Your task to perform on an android device: stop showing notifications on the lock screen Image 0: 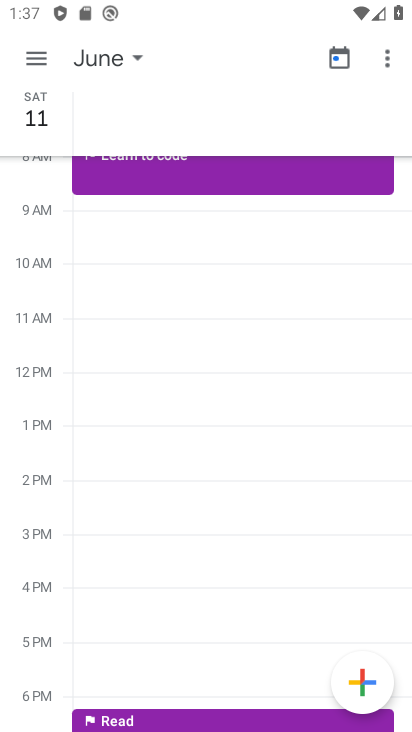
Step 0: press home button
Your task to perform on an android device: stop showing notifications on the lock screen Image 1: 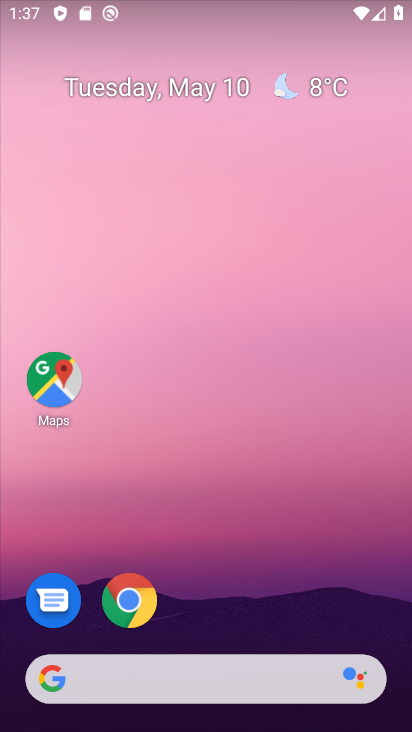
Step 1: drag from (209, 630) to (276, 80)
Your task to perform on an android device: stop showing notifications on the lock screen Image 2: 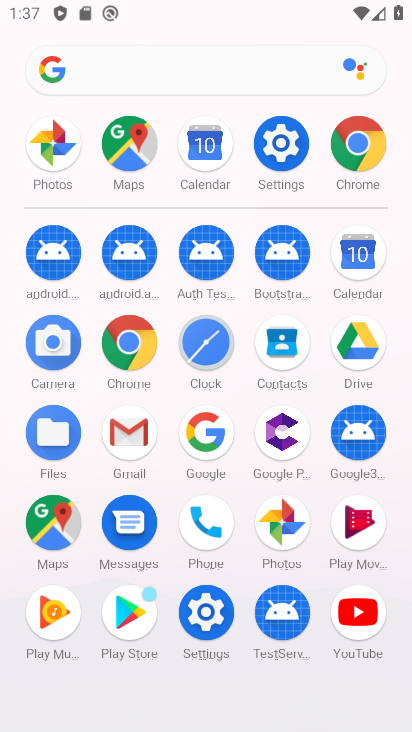
Step 2: click (273, 135)
Your task to perform on an android device: stop showing notifications on the lock screen Image 3: 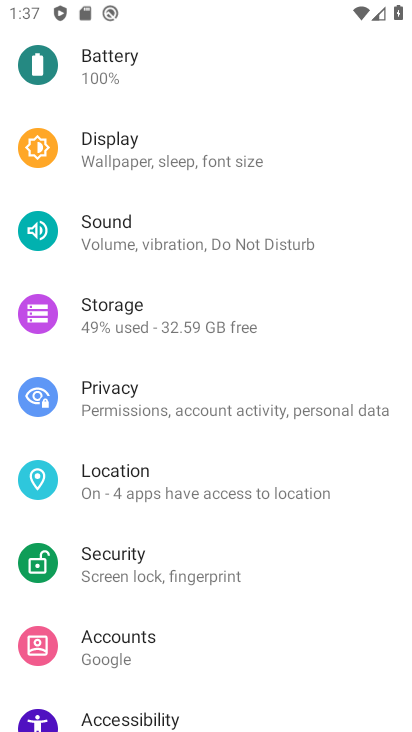
Step 3: drag from (149, 124) to (164, 578)
Your task to perform on an android device: stop showing notifications on the lock screen Image 4: 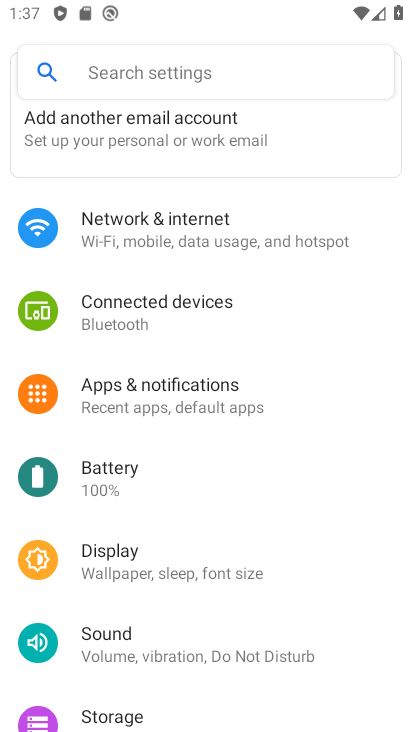
Step 4: click (161, 396)
Your task to perform on an android device: stop showing notifications on the lock screen Image 5: 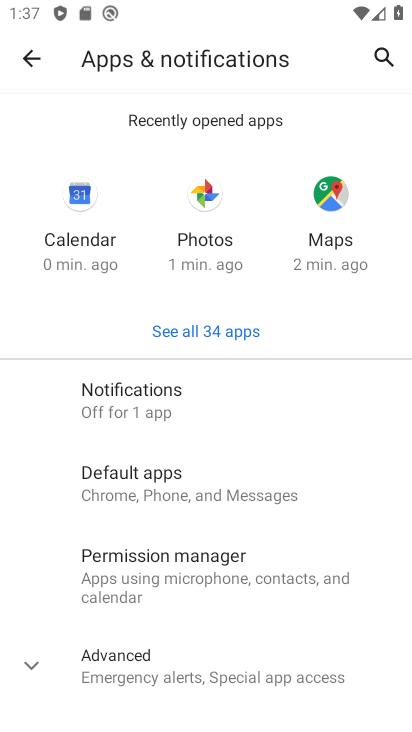
Step 5: click (190, 393)
Your task to perform on an android device: stop showing notifications on the lock screen Image 6: 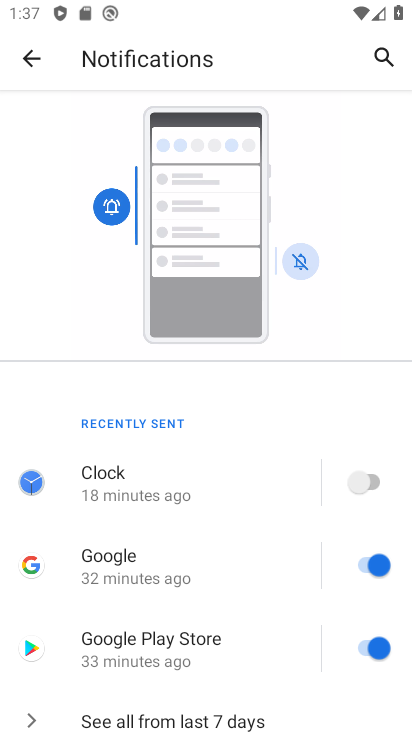
Step 6: drag from (237, 571) to (256, 286)
Your task to perform on an android device: stop showing notifications on the lock screen Image 7: 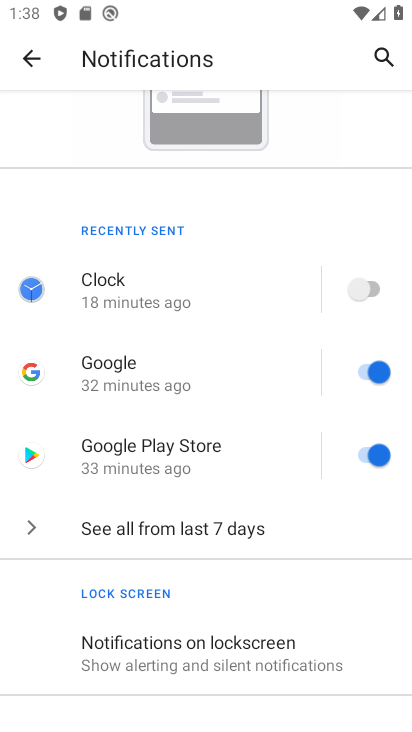
Step 7: click (230, 648)
Your task to perform on an android device: stop showing notifications on the lock screen Image 8: 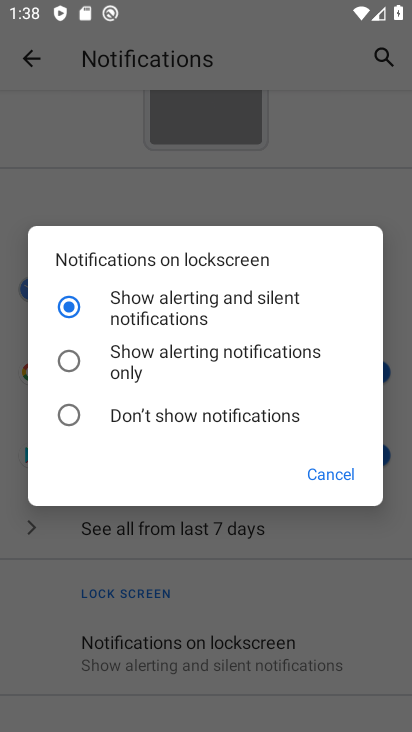
Step 8: click (66, 411)
Your task to perform on an android device: stop showing notifications on the lock screen Image 9: 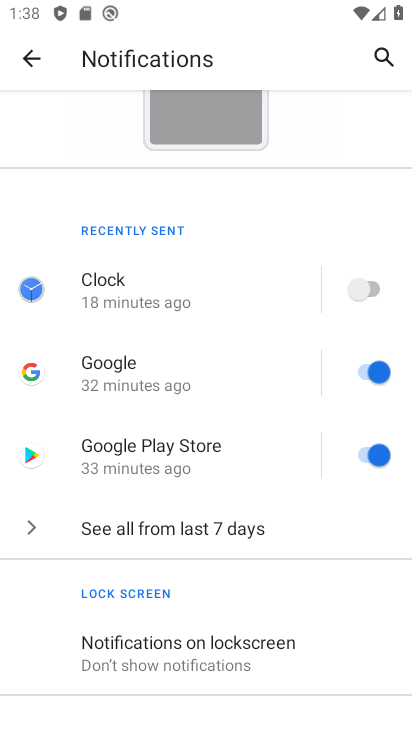
Step 9: task complete